Your task to perform on an android device: Open Google Image 0: 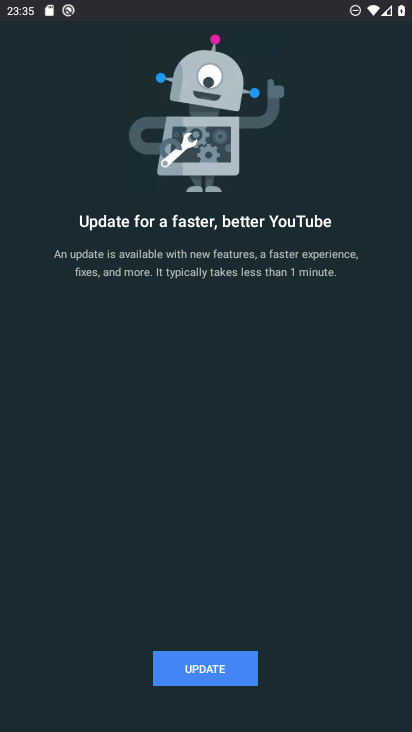
Step 0: press home button
Your task to perform on an android device: Open Google Image 1: 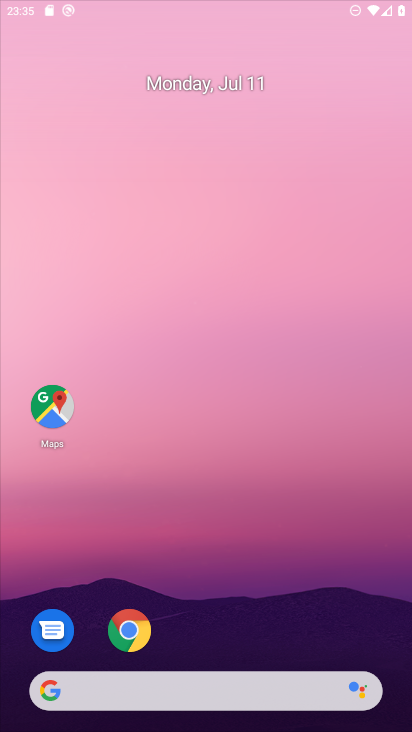
Step 1: drag from (230, 665) to (342, 76)
Your task to perform on an android device: Open Google Image 2: 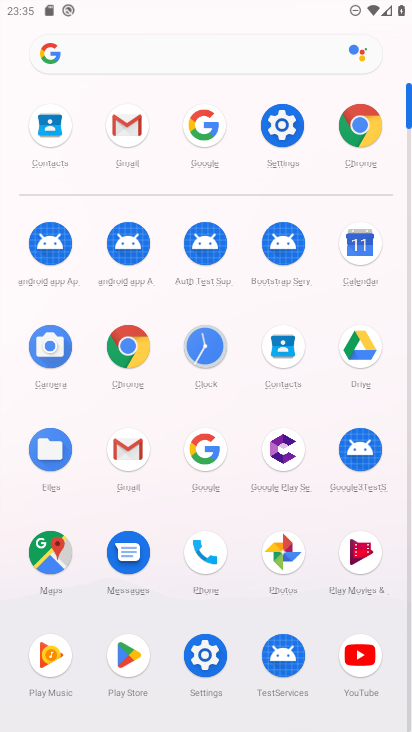
Step 2: click (201, 453)
Your task to perform on an android device: Open Google Image 3: 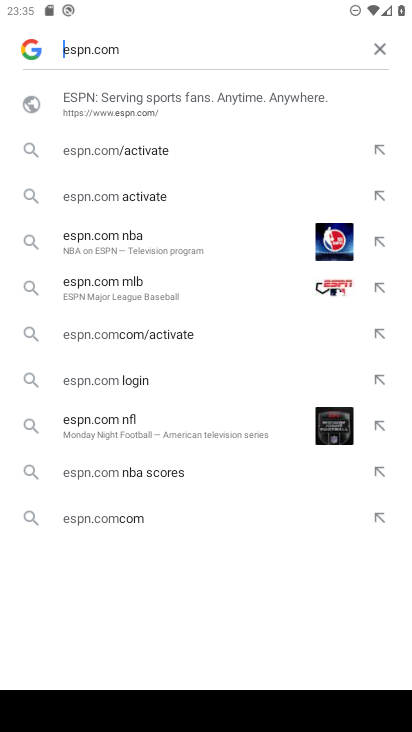
Step 3: task complete